Your task to perform on an android device: Find coffee shops on Maps Image 0: 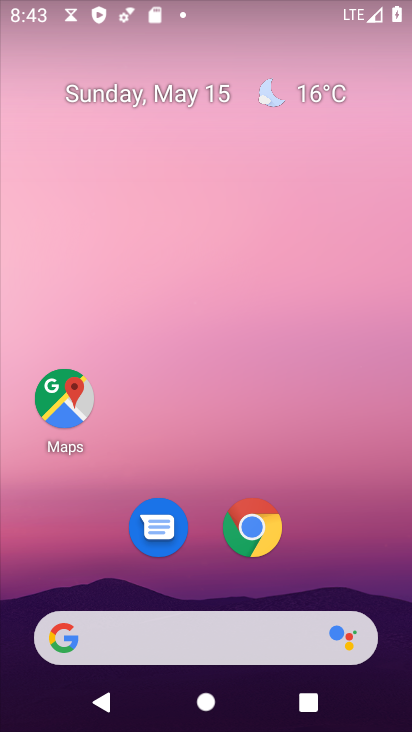
Step 0: click (63, 395)
Your task to perform on an android device: Find coffee shops on Maps Image 1: 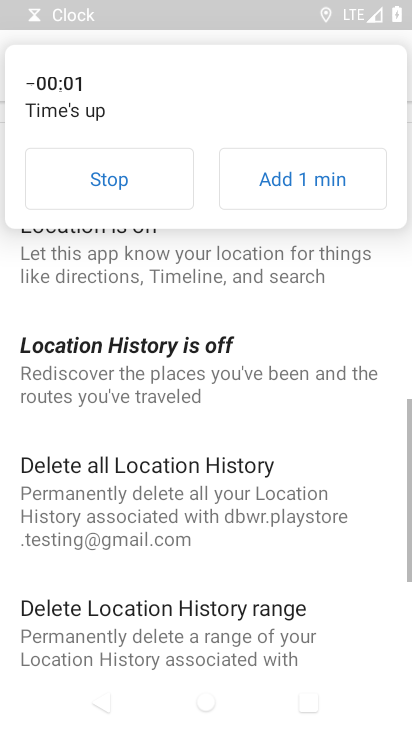
Step 1: click (28, 68)
Your task to perform on an android device: Find coffee shops on Maps Image 2: 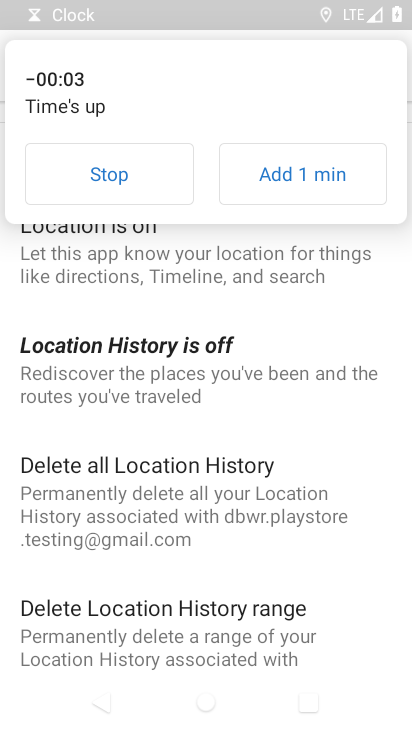
Step 2: click (136, 170)
Your task to perform on an android device: Find coffee shops on Maps Image 3: 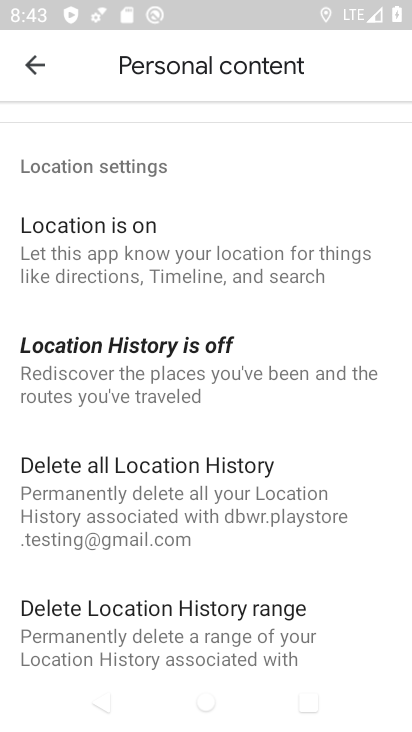
Step 3: click (36, 65)
Your task to perform on an android device: Find coffee shops on Maps Image 4: 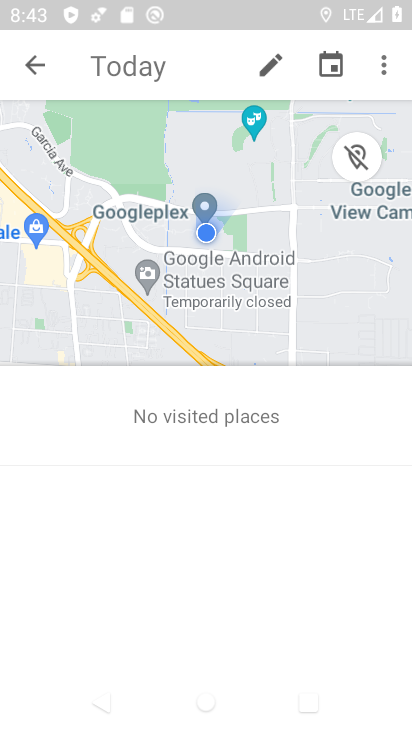
Step 4: click (25, 53)
Your task to perform on an android device: Find coffee shops on Maps Image 5: 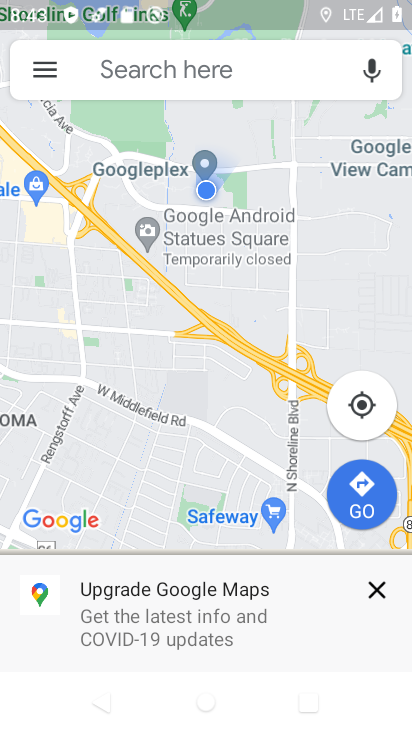
Step 5: click (119, 71)
Your task to perform on an android device: Find coffee shops on Maps Image 6: 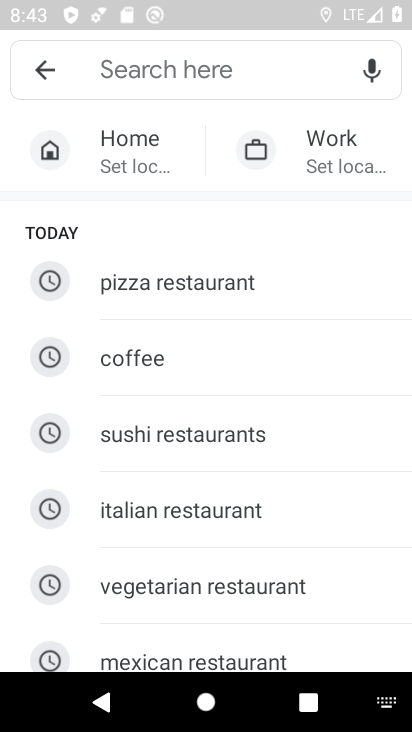
Step 6: type "coffee shop"
Your task to perform on an android device: Find coffee shops on Maps Image 7: 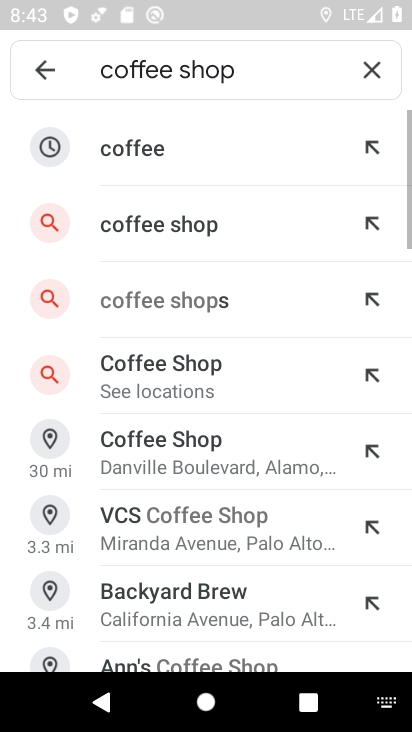
Step 7: click (128, 229)
Your task to perform on an android device: Find coffee shops on Maps Image 8: 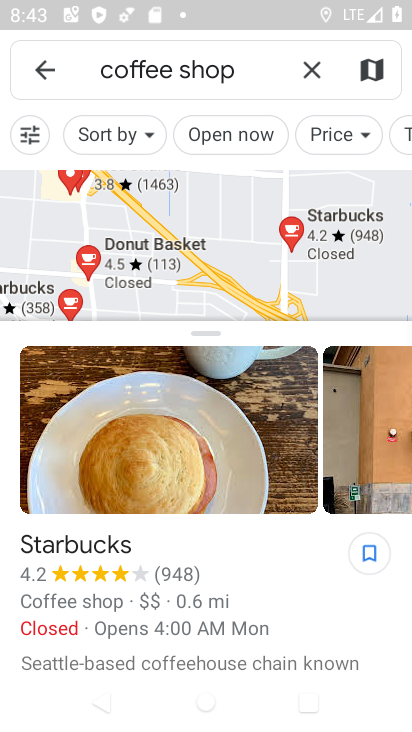
Step 8: task complete